Your task to perform on an android device: Play the new Taylor Swift video on YouTube Image 0: 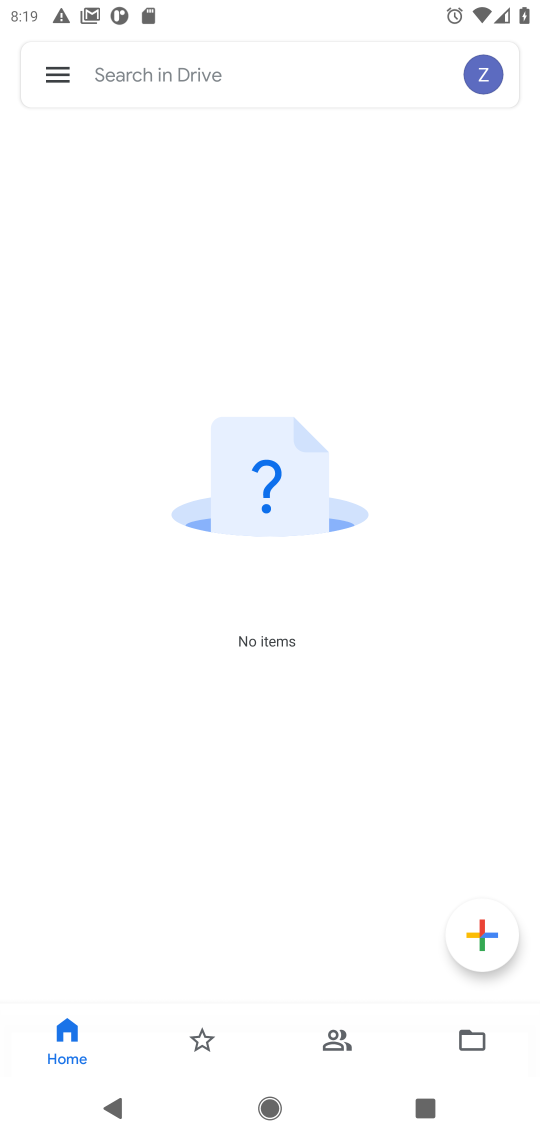
Step 0: press home button
Your task to perform on an android device: Play the new Taylor Swift video on YouTube Image 1: 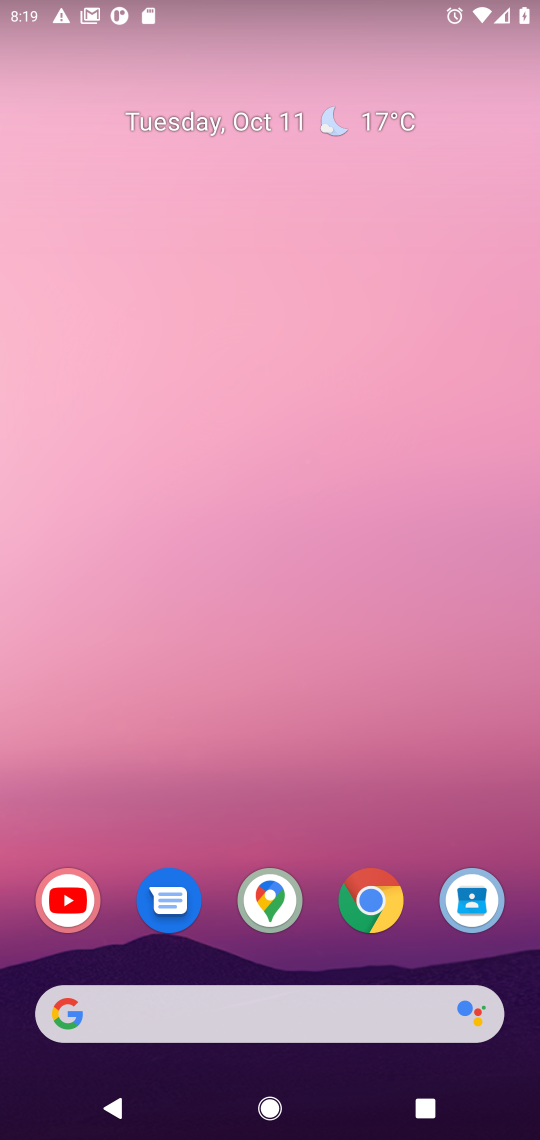
Step 1: click (56, 890)
Your task to perform on an android device: Play the new Taylor Swift video on YouTube Image 2: 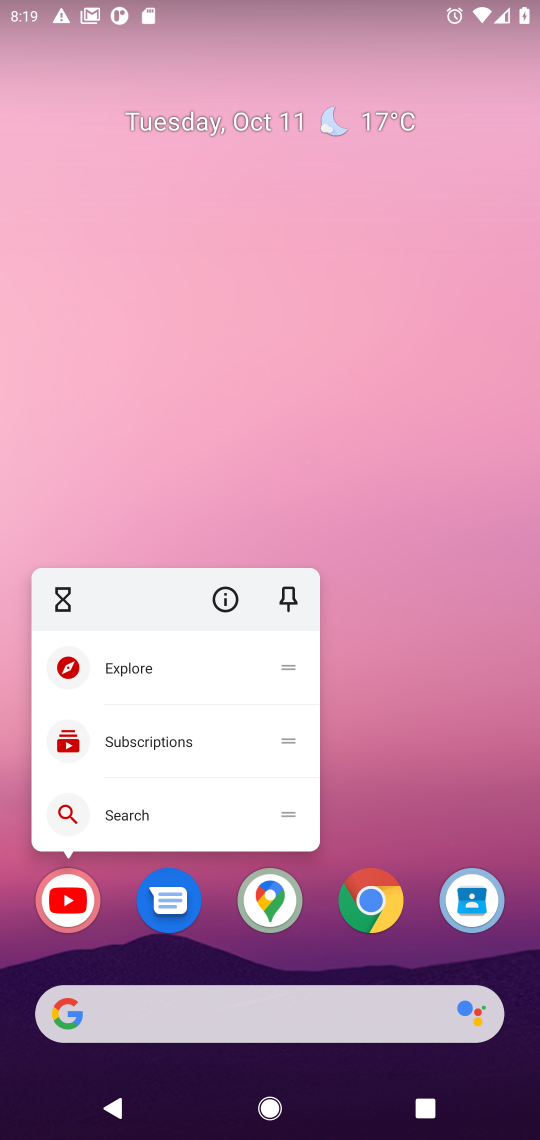
Step 2: click (73, 893)
Your task to perform on an android device: Play the new Taylor Swift video on YouTube Image 3: 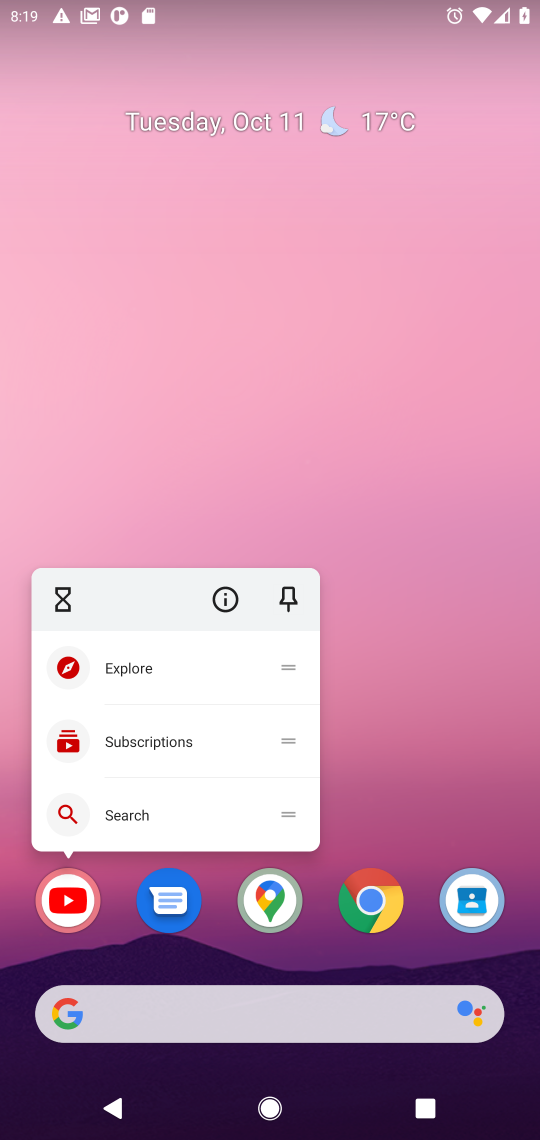
Step 3: click (75, 895)
Your task to perform on an android device: Play the new Taylor Swift video on YouTube Image 4: 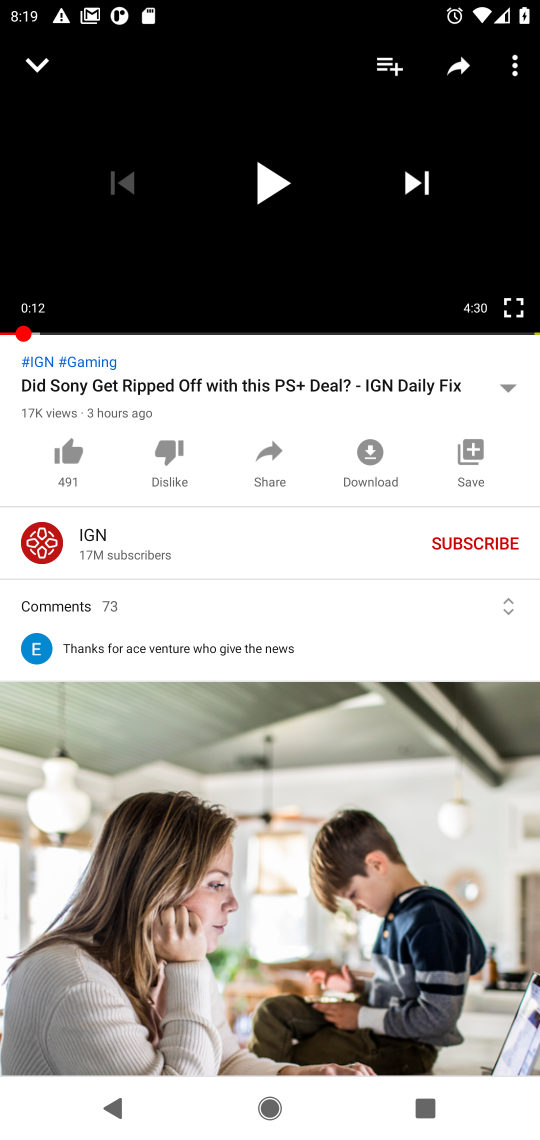
Step 4: press back button
Your task to perform on an android device: Play the new Taylor Swift video on YouTube Image 5: 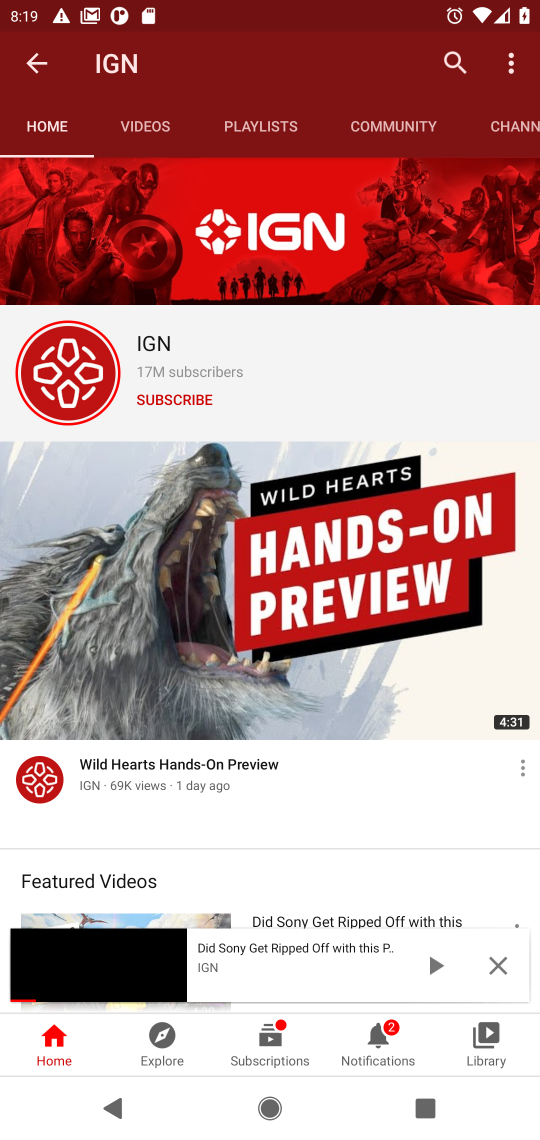
Step 5: press back button
Your task to perform on an android device: Play the new Taylor Swift video on YouTube Image 6: 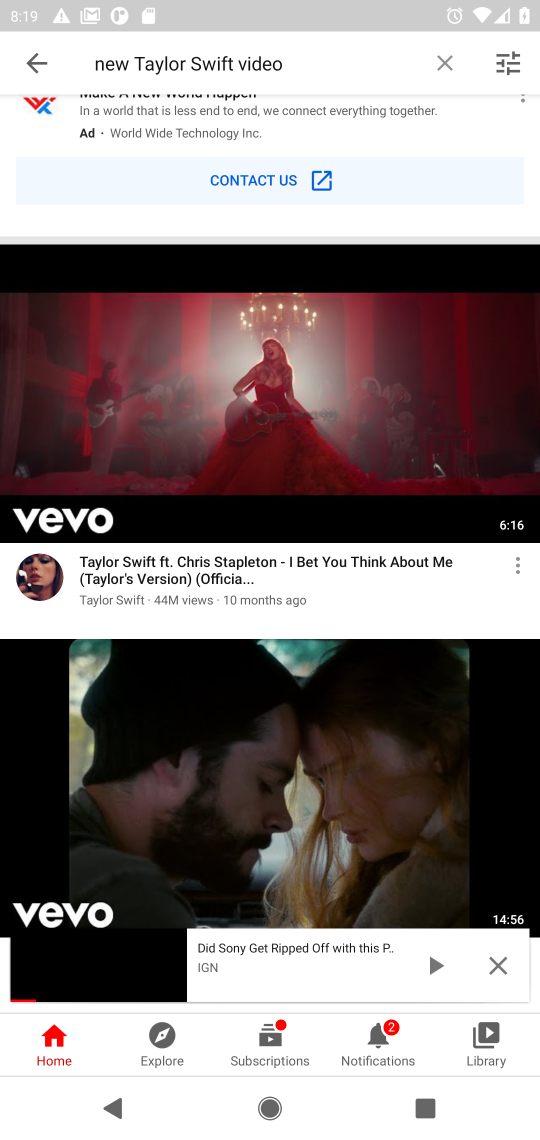
Step 6: click (439, 62)
Your task to perform on an android device: Play the new Taylor Swift video on YouTube Image 7: 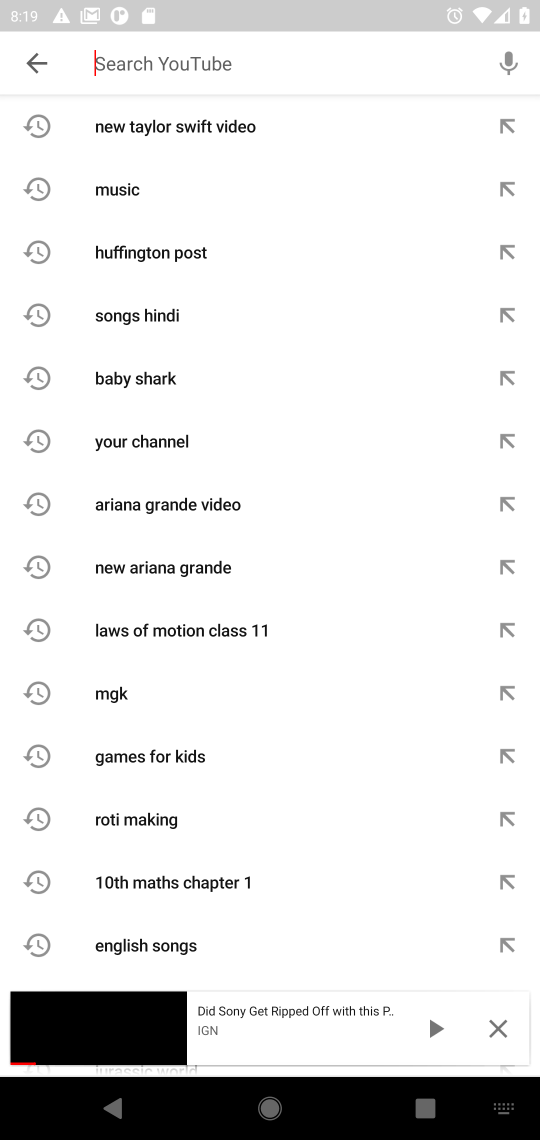
Step 7: click (497, 1031)
Your task to perform on an android device: Play the new Taylor Swift video on YouTube Image 8: 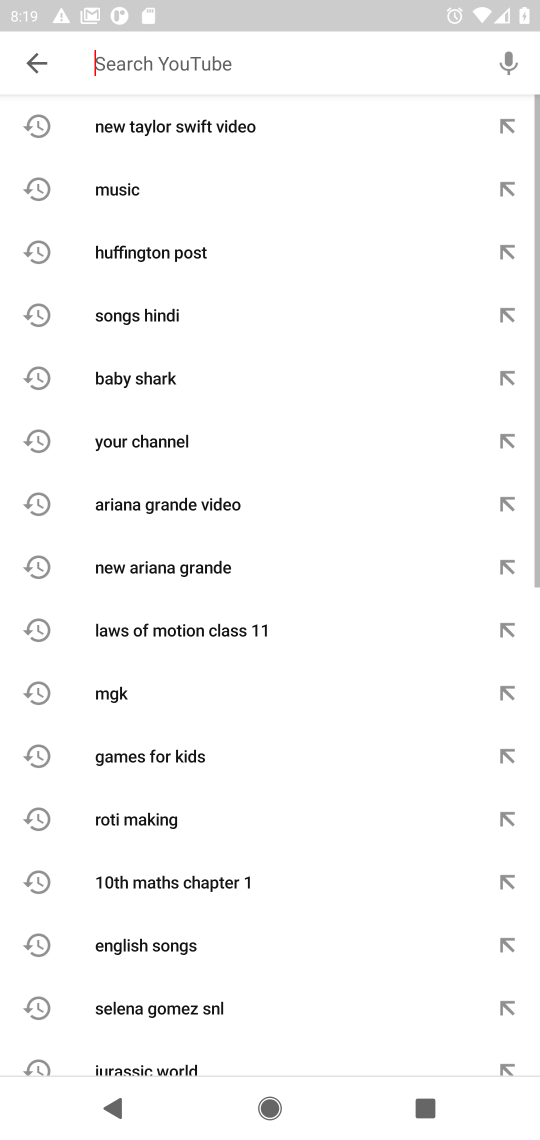
Step 8: click (179, 56)
Your task to perform on an android device: Play the new Taylor Swift video on YouTube Image 9: 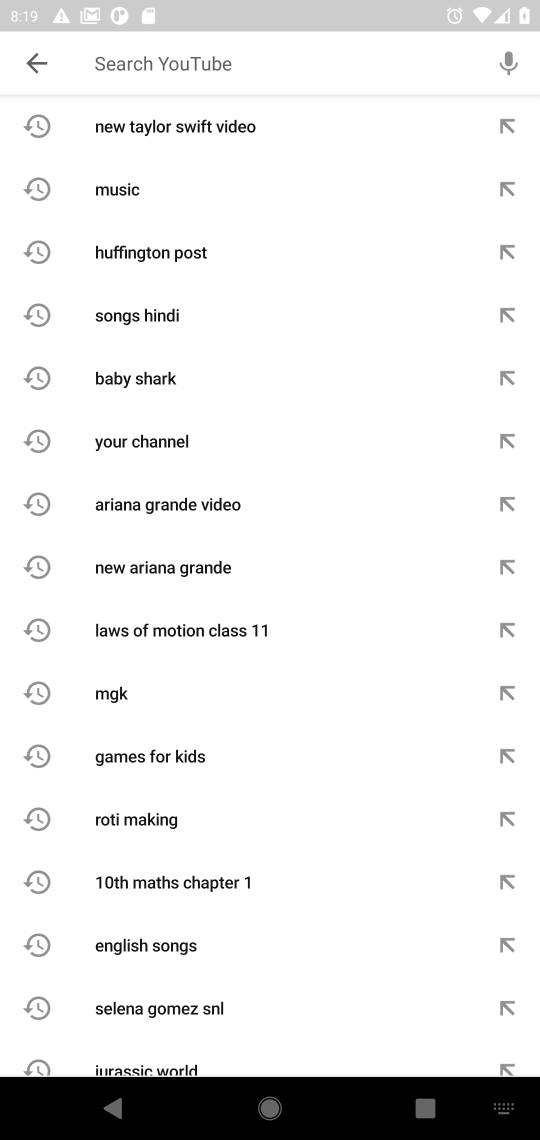
Step 9: type "new Taylor Swift video"
Your task to perform on an android device: Play the new Taylor Swift video on YouTube Image 10: 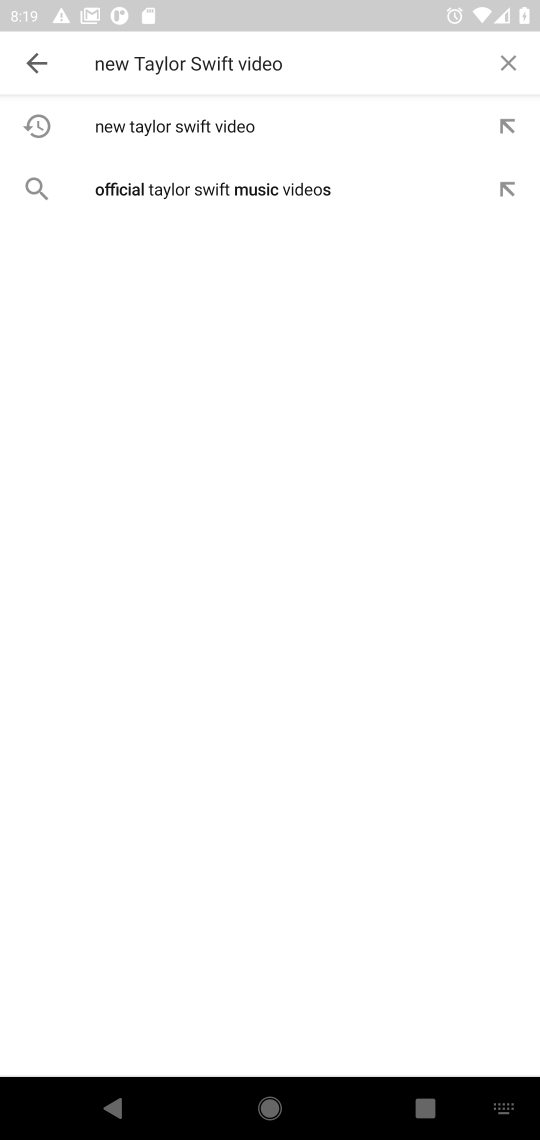
Step 10: press enter
Your task to perform on an android device: Play the new Taylor Swift video on YouTube Image 11: 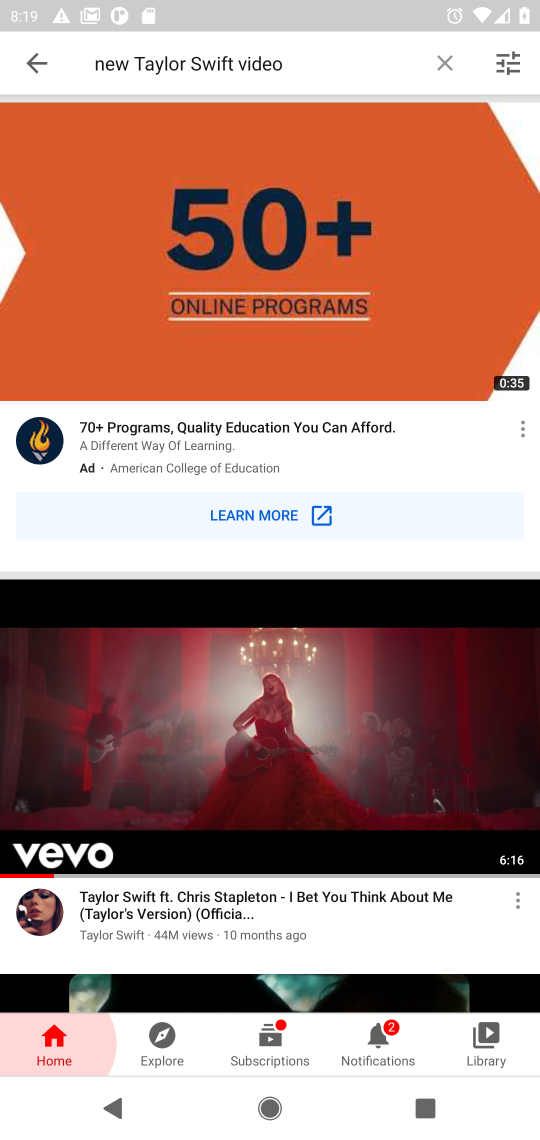
Step 11: click (280, 715)
Your task to perform on an android device: Play the new Taylor Swift video on YouTube Image 12: 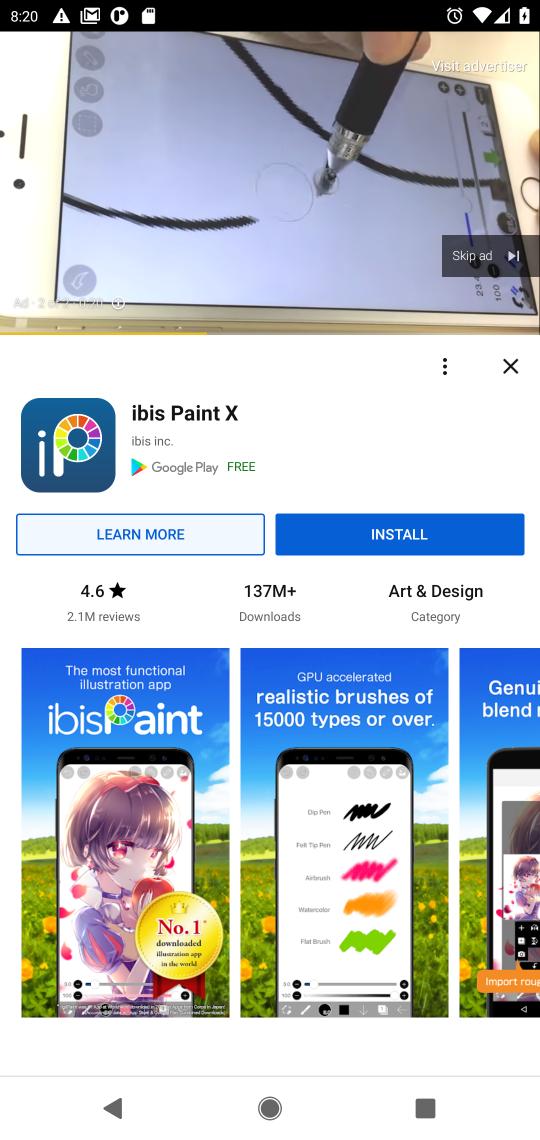
Step 12: click (473, 256)
Your task to perform on an android device: Play the new Taylor Swift video on YouTube Image 13: 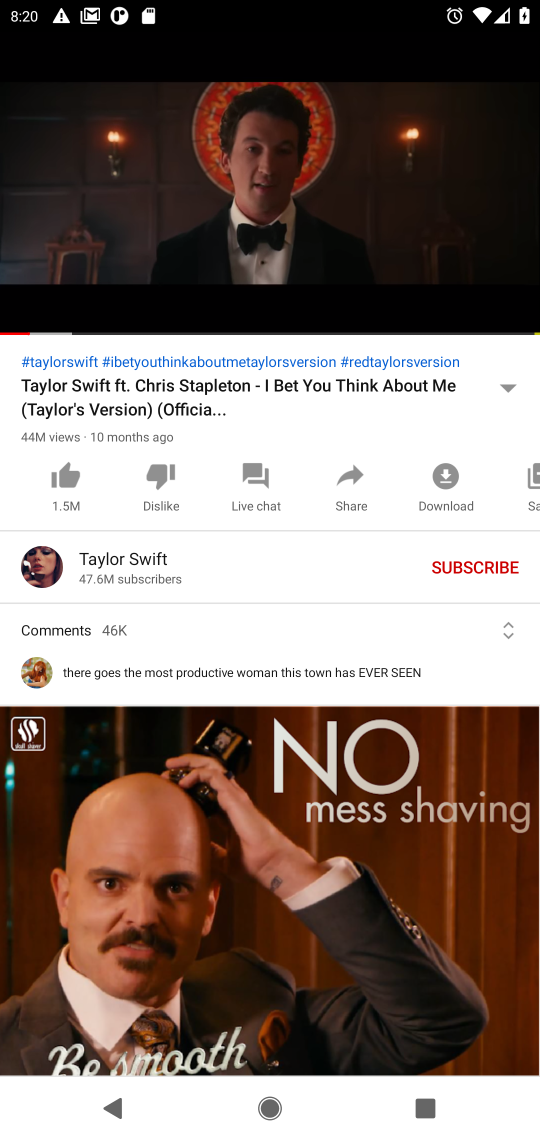
Step 13: click (260, 184)
Your task to perform on an android device: Play the new Taylor Swift video on YouTube Image 14: 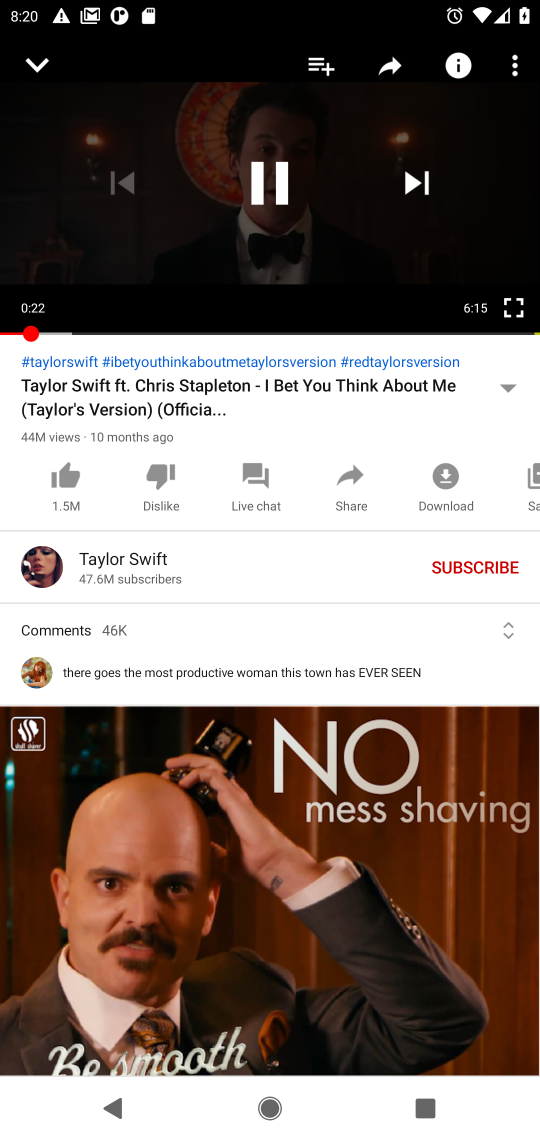
Step 14: click (267, 174)
Your task to perform on an android device: Play the new Taylor Swift video on YouTube Image 15: 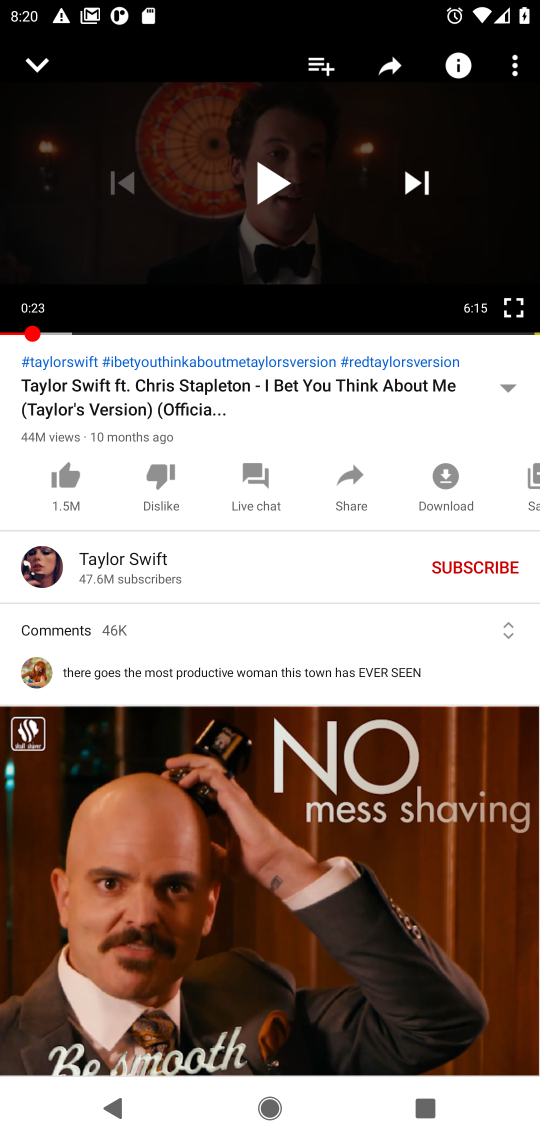
Step 15: task complete